Your task to perform on an android device: delete a single message in the gmail app Image 0: 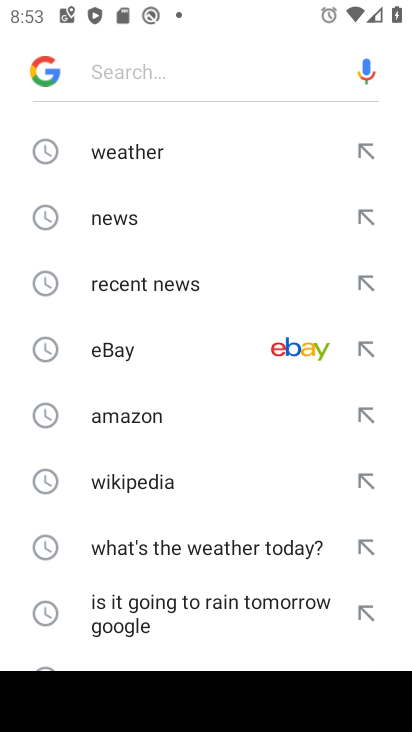
Step 0: press home button
Your task to perform on an android device: delete a single message in the gmail app Image 1: 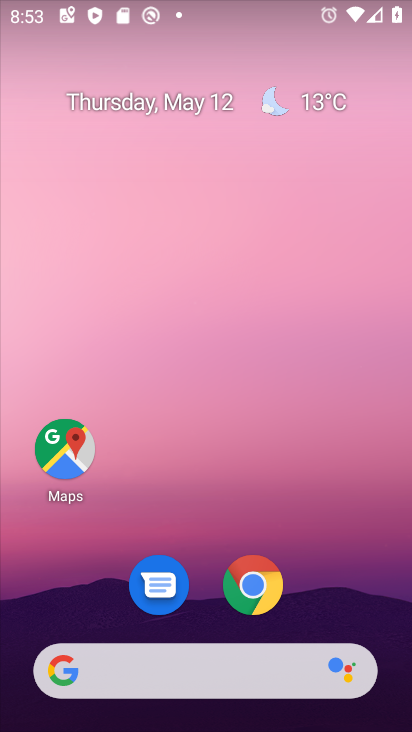
Step 1: drag from (231, 506) to (180, 87)
Your task to perform on an android device: delete a single message in the gmail app Image 2: 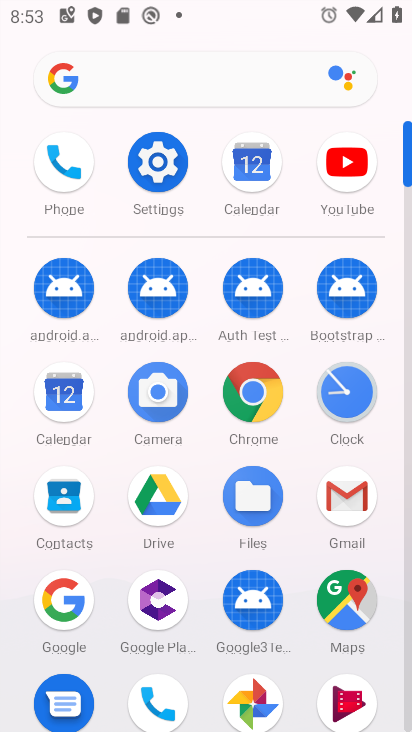
Step 2: click (354, 511)
Your task to perform on an android device: delete a single message in the gmail app Image 3: 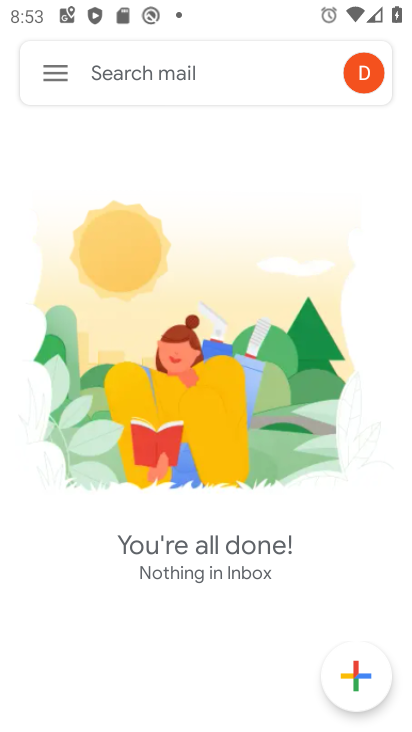
Step 3: click (50, 72)
Your task to perform on an android device: delete a single message in the gmail app Image 4: 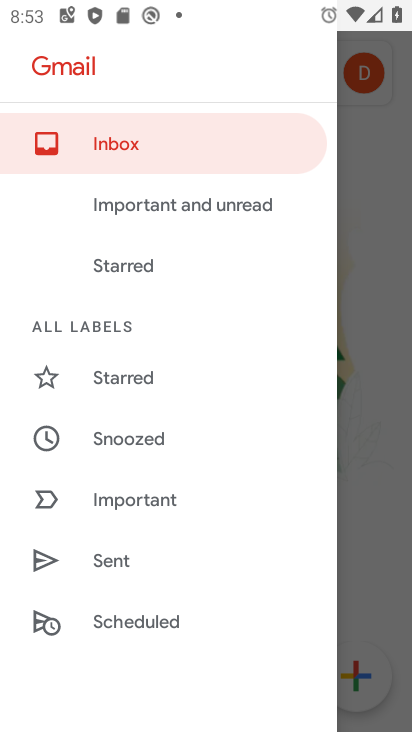
Step 4: drag from (205, 535) to (203, 192)
Your task to perform on an android device: delete a single message in the gmail app Image 5: 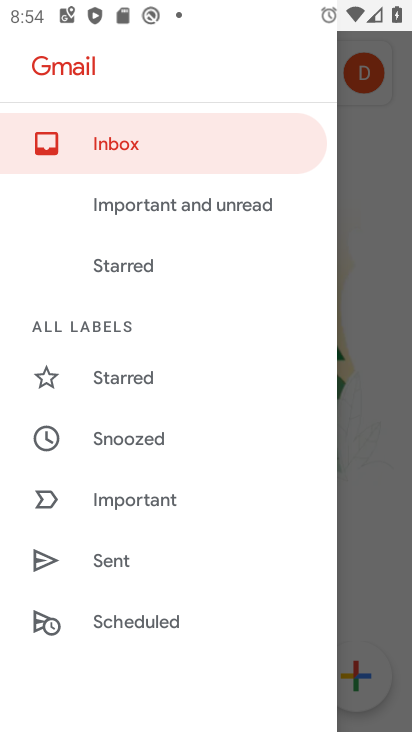
Step 5: drag from (172, 572) to (220, 102)
Your task to perform on an android device: delete a single message in the gmail app Image 6: 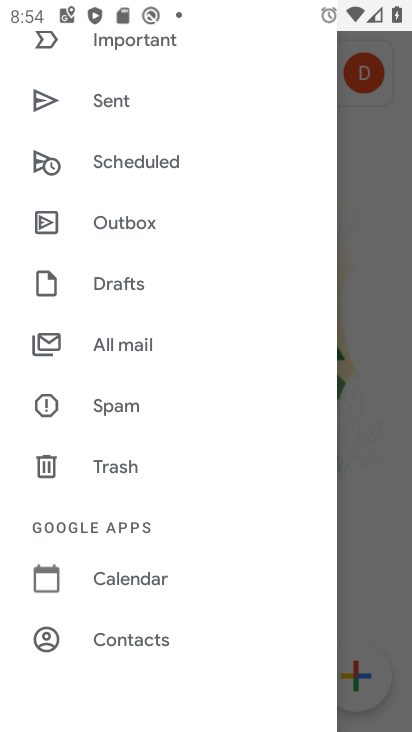
Step 6: click (139, 333)
Your task to perform on an android device: delete a single message in the gmail app Image 7: 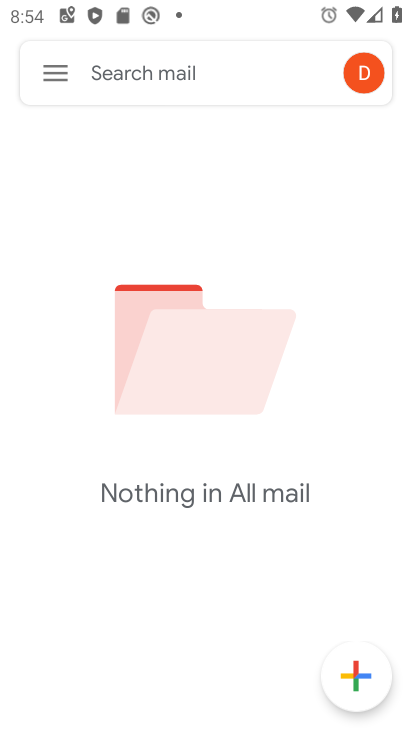
Step 7: task complete